Your task to perform on an android device: open app "Instagram" (install if not already installed) Image 0: 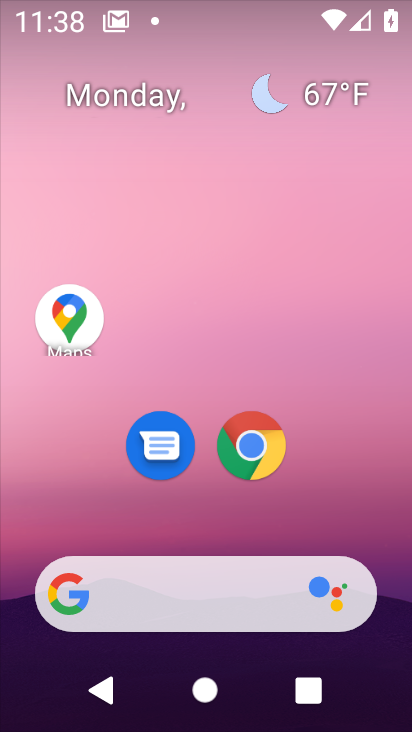
Step 0: drag from (194, 648) to (275, 108)
Your task to perform on an android device: open app "Instagram" (install if not already installed) Image 1: 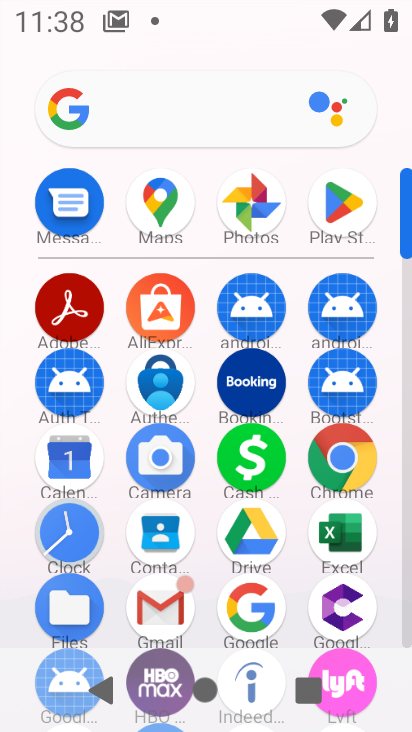
Step 1: click (324, 207)
Your task to perform on an android device: open app "Instagram" (install if not already installed) Image 2: 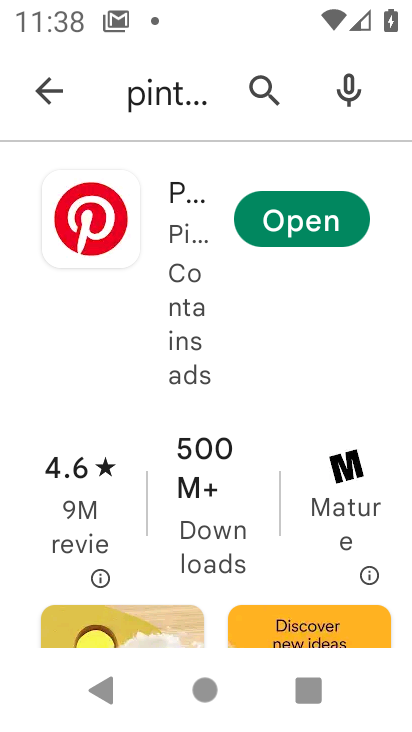
Step 2: click (36, 104)
Your task to perform on an android device: open app "Instagram" (install if not already installed) Image 3: 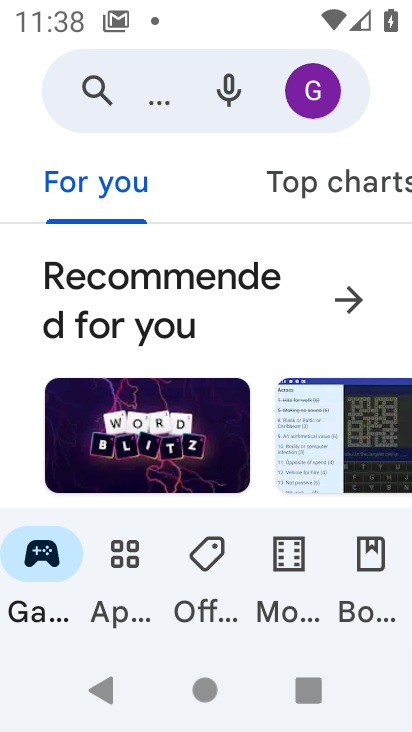
Step 3: click (94, 88)
Your task to perform on an android device: open app "Instagram" (install if not already installed) Image 4: 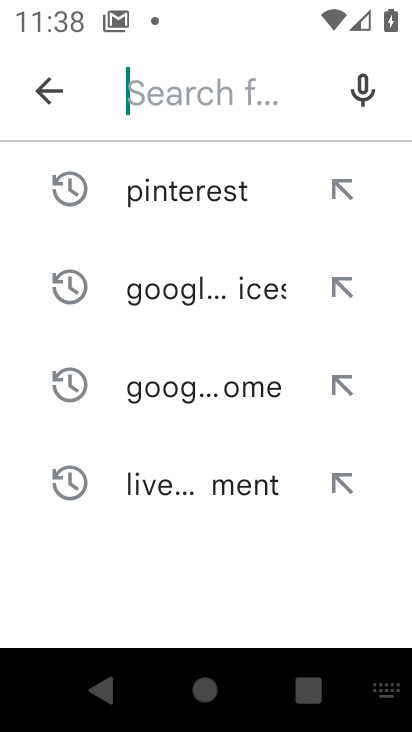
Step 4: type "Instagram"
Your task to perform on an android device: open app "Instagram" (install if not already installed) Image 5: 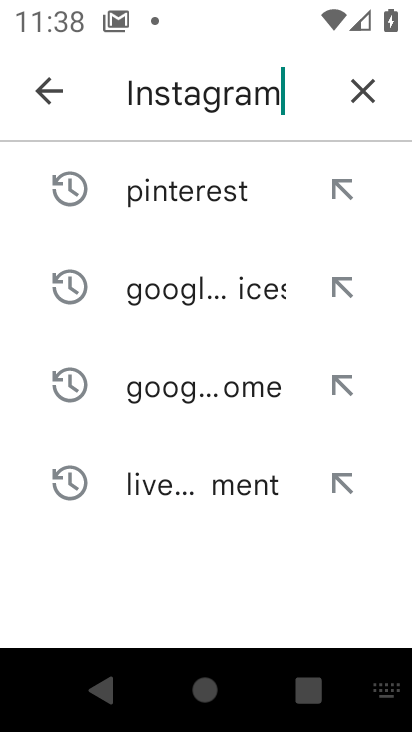
Step 5: type ""
Your task to perform on an android device: open app "Instagram" (install if not already installed) Image 6: 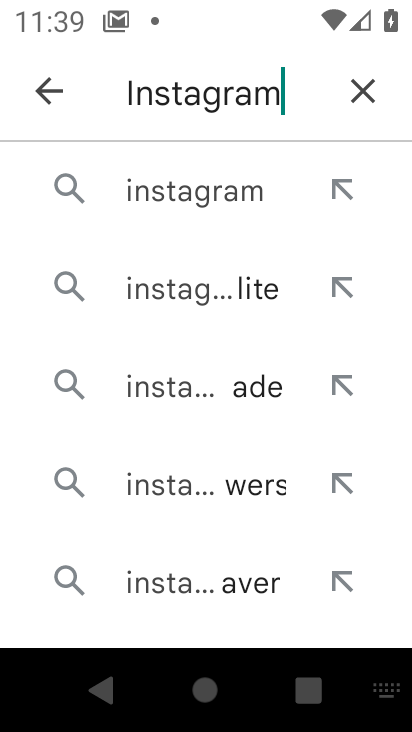
Step 6: click (237, 195)
Your task to perform on an android device: open app "Instagram" (install if not already installed) Image 7: 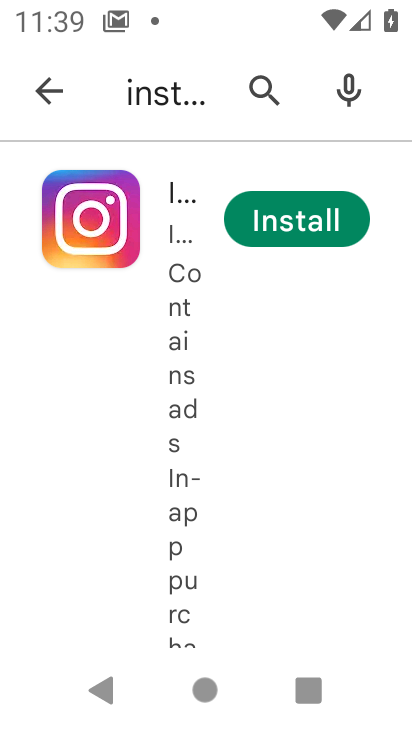
Step 7: click (286, 224)
Your task to perform on an android device: open app "Instagram" (install if not already installed) Image 8: 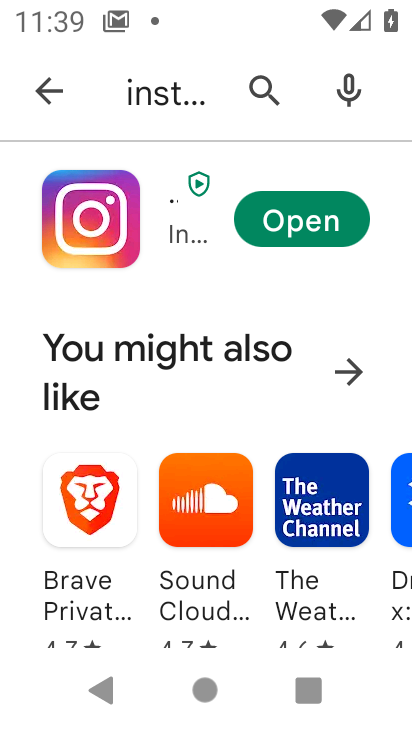
Step 8: click (358, 212)
Your task to perform on an android device: open app "Instagram" (install if not already installed) Image 9: 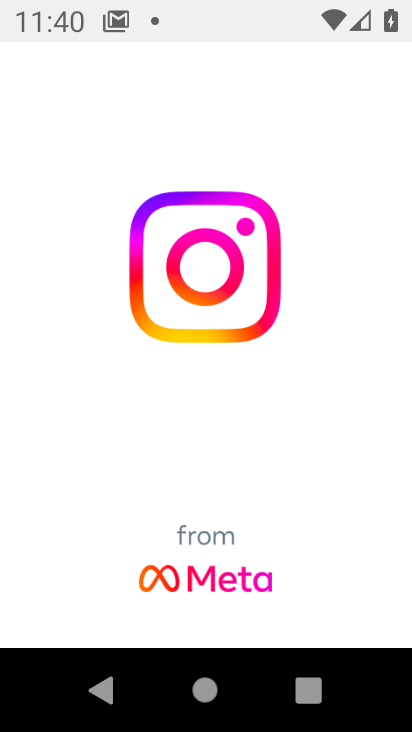
Step 9: task complete